Your task to perform on an android device: Open the phone app and click the voicemail tab. Image 0: 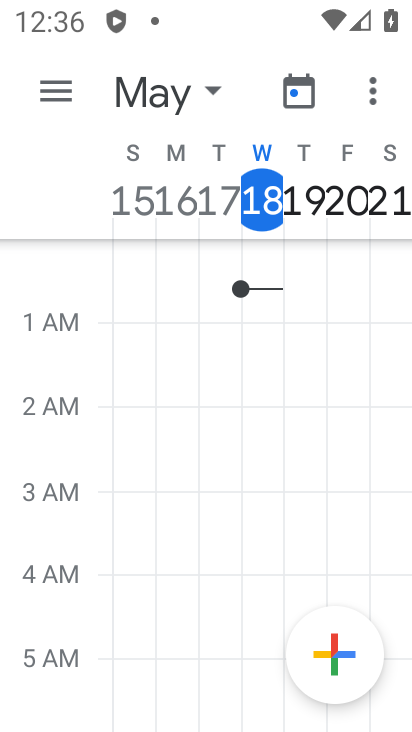
Step 0: press home button
Your task to perform on an android device: Open the phone app and click the voicemail tab. Image 1: 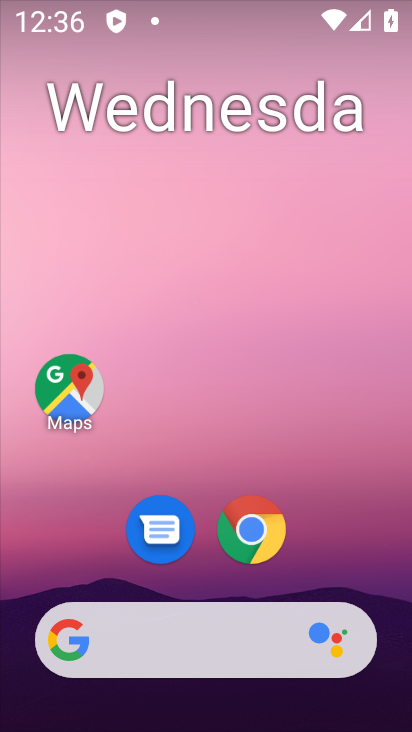
Step 1: drag from (215, 714) to (214, 103)
Your task to perform on an android device: Open the phone app and click the voicemail tab. Image 2: 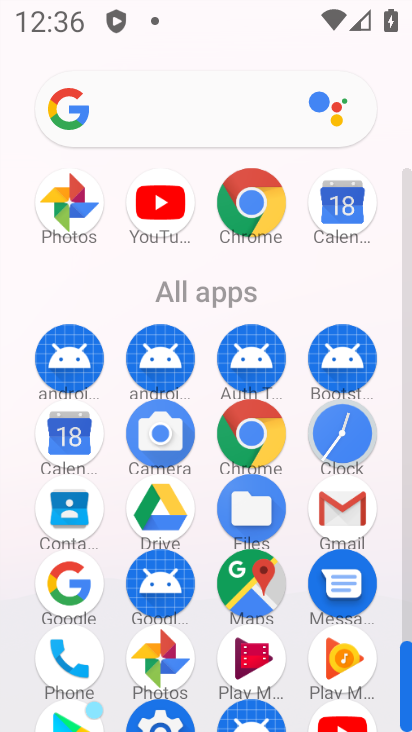
Step 2: click (69, 655)
Your task to perform on an android device: Open the phone app and click the voicemail tab. Image 3: 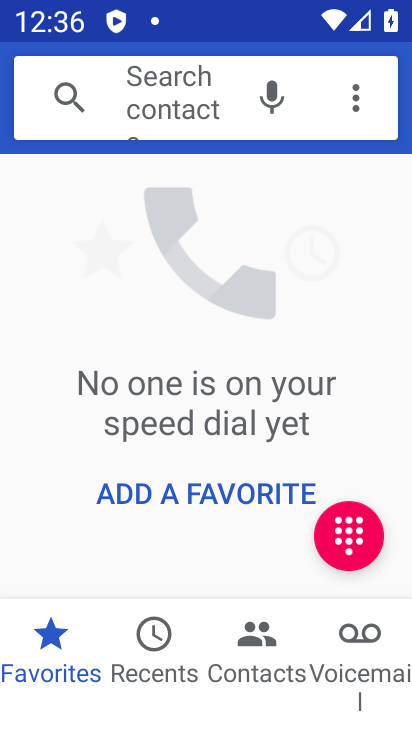
Step 3: click (363, 641)
Your task to perform on an android device: Open the phone app and click the voicemail tab. Image 4: 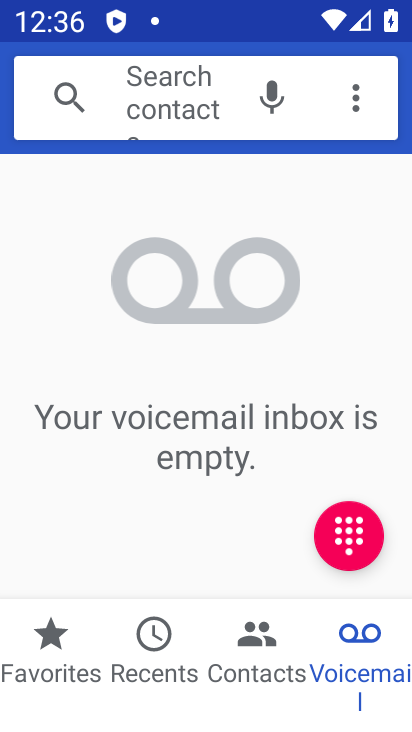
Step 4: task complete